Your task to perform on an android device: Check the weather Image 0: 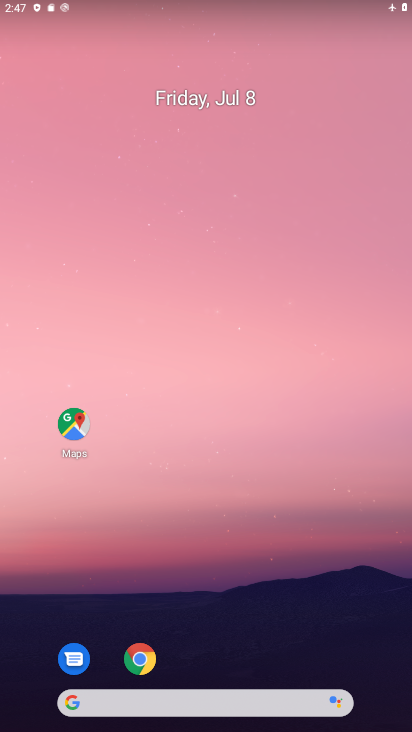
Step 0: drag from (197, 317) to (241, 141)
Your task to perform on an android device: Check the weather Image 1: 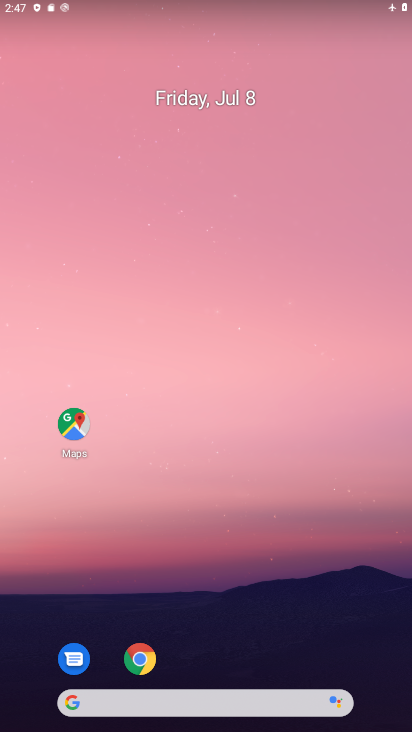
Step 1: drag from (197, 633) to (235, 239)
Your task to perform on an android device: Check the weather Image 2: 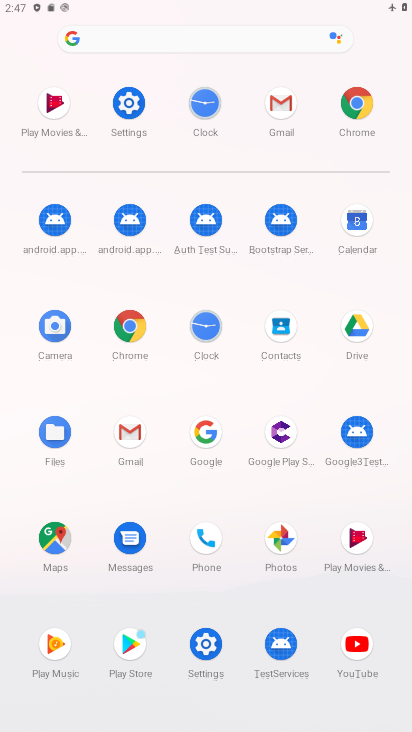
Step 2: click (356, 103)
Your task to perform on an android device: Check the weather Image 3: 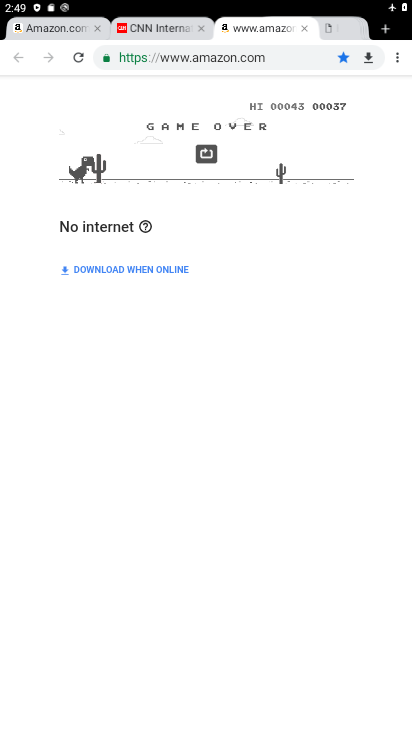
Step 3: task complete